Your task to perform on an android device: Show me recent news Image 0: 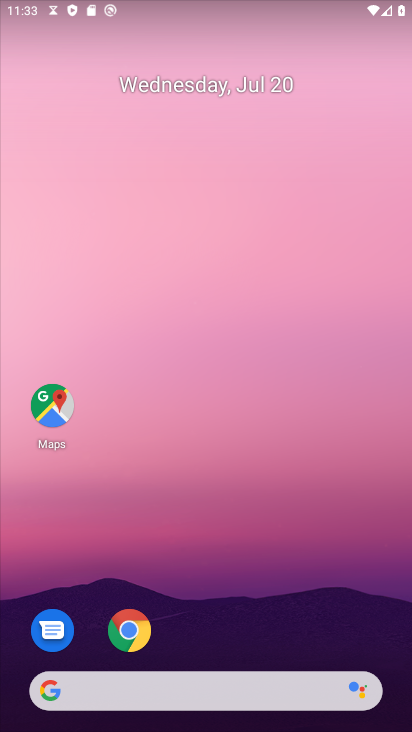
Step 0: click (136, 698)
Your task to perform on an android device: Show me recent news Image 1: 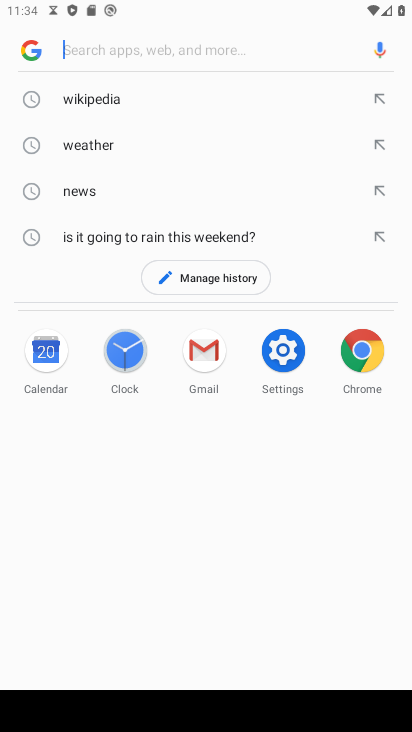
Step 1: type "recent news"
Your task to perform on an android device: Show me recent news Image 2: 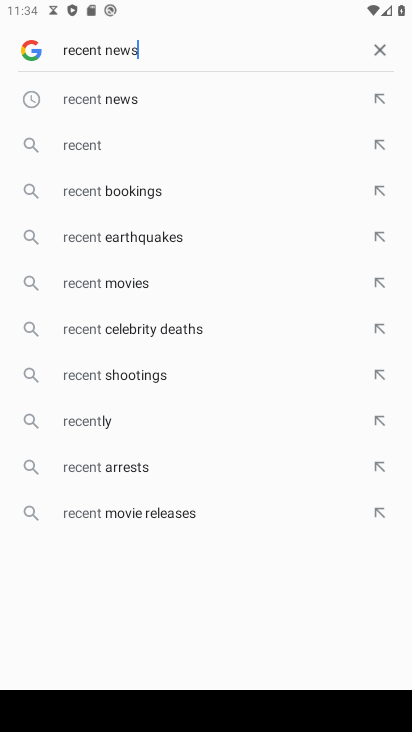
Step 2: type ""
Your task to perform on an android device: Show me recent news Image 3: 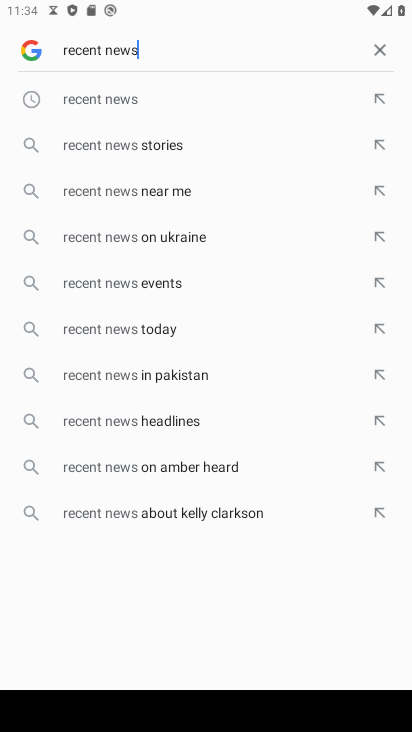
Step 3: click (117, 88)
Your task to perform on an android device: Show me recent news Image 4: 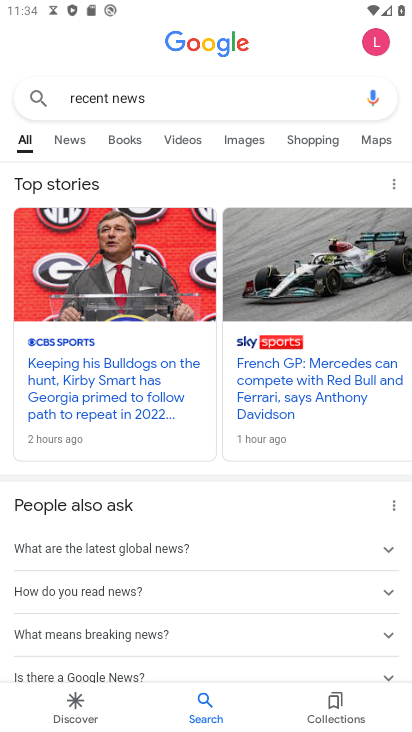
Step 4: task complete